Your task to perform on an android device: Open sound settings Image 0: 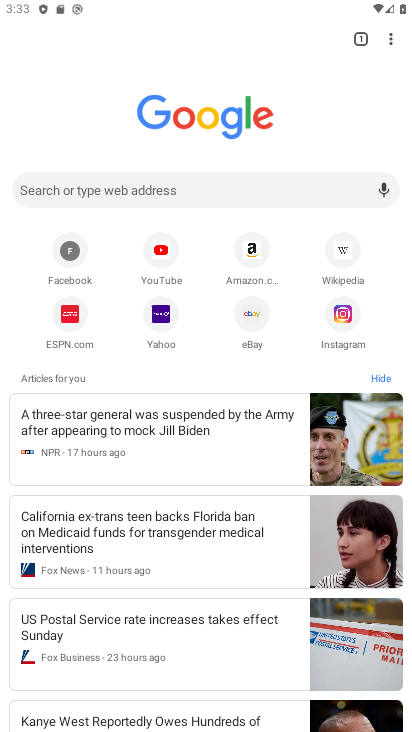
Step 0: press home button
Your task to perform on an android device: Open sound settings Image 1: 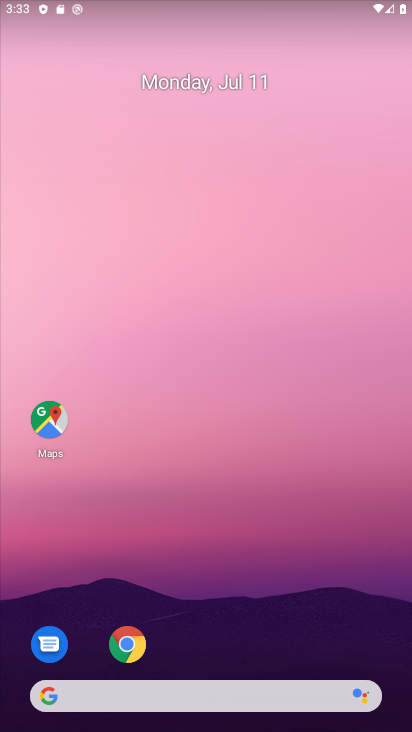
Step 1: drag from (196, 684) to (375, 0)
Your task to perform on an android device: Open sound settings Image 2: 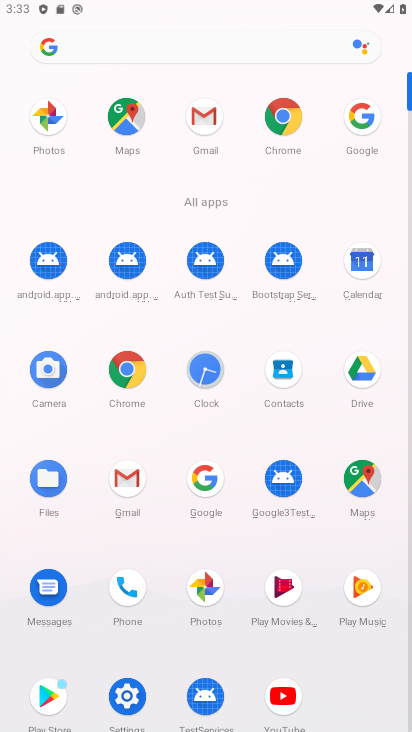
Step 2: click (126, 694)
Your task to perform on an android device: Open sound settings Image 3: 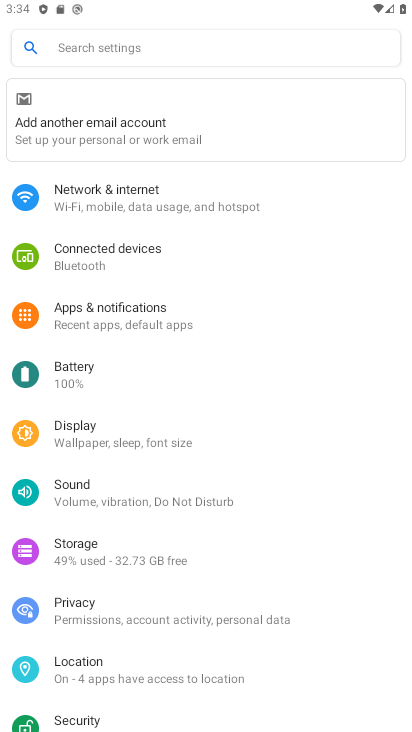
Step 3: click (112, 495)
Your task to perform on an android device: Open sound settings Image 4: 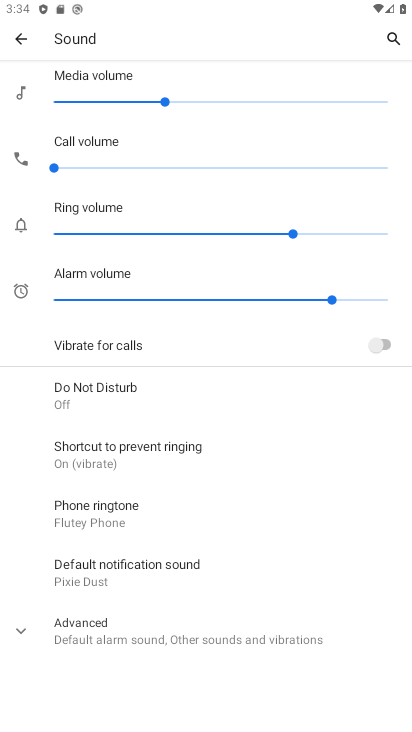
Step 4: task complete